Your task to perform on an android device: Open the map Image 0: 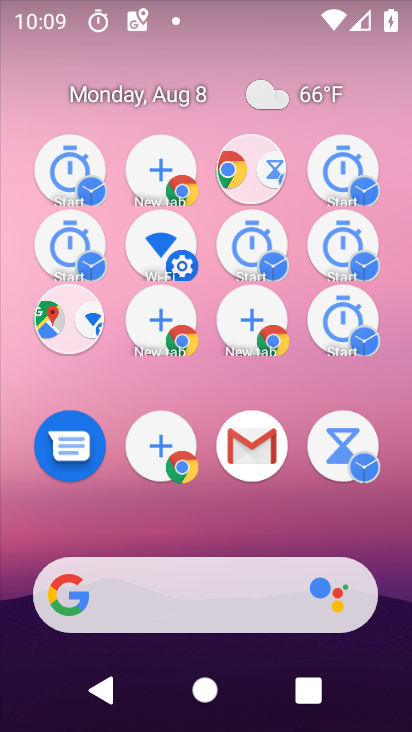
Step 0: drag from (326, 650) to (246, 286)
Your task to perform on an android device: Open the map Image 1: 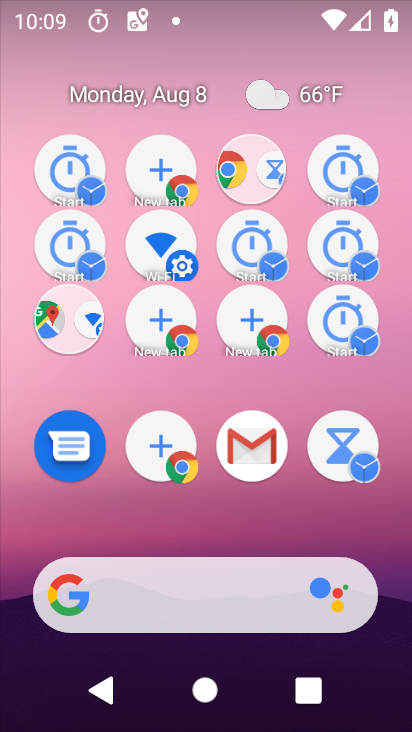
Step 1: drag from (233, 552) to (225, 216)
Your task to perform on an android device: Open the map Image 2: 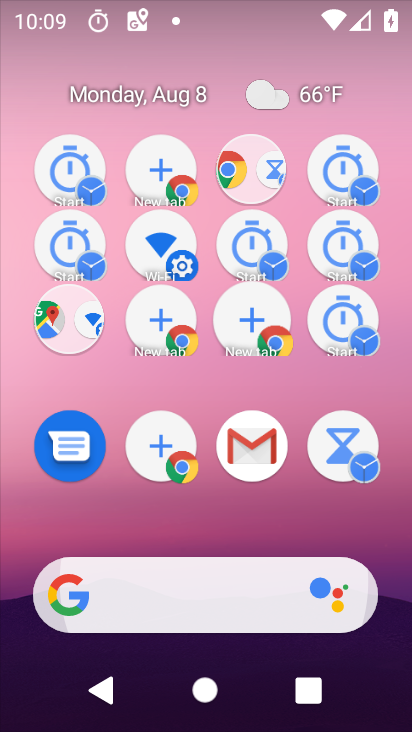
Step 2: drag from (250, 440) to (211, 152)
Your task to perform on an android device: Open the map Image 3: 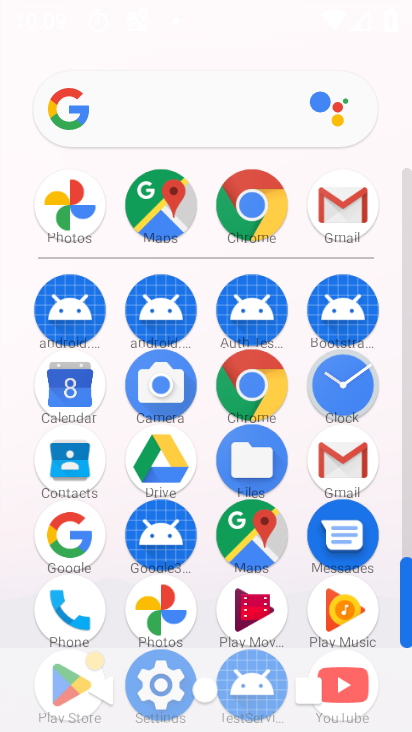
Step 3: drag from (268, 571) to (228, 301)
Your task to perform on an android device: Open the map Image 4: 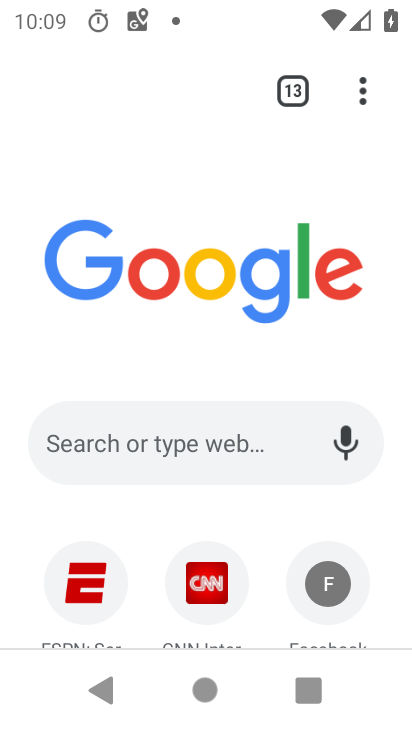
Step 4: press back button
Your task to perform on an android device: Open the map Image 5: 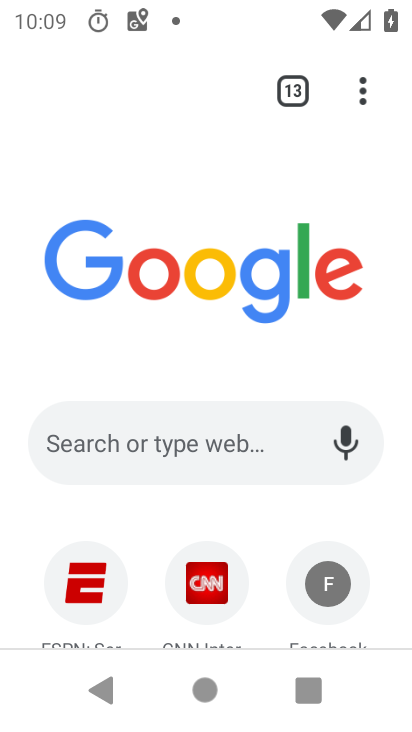
Step 5: press back button
Your task to perform on an android device: Open the map Image 6: 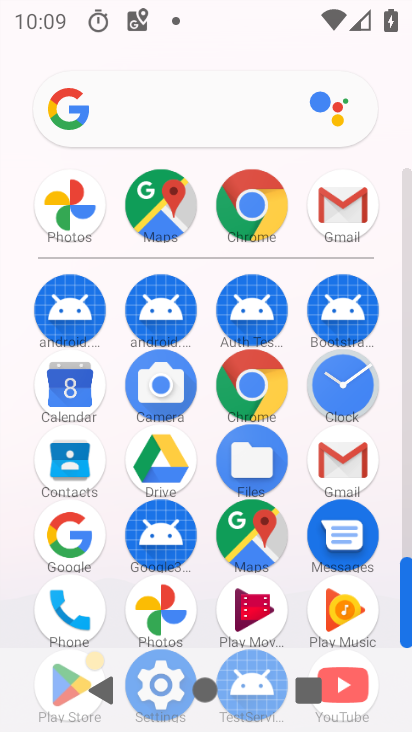
Step 6: press back button
Your task to perform on an android device: Open the map Image 7: 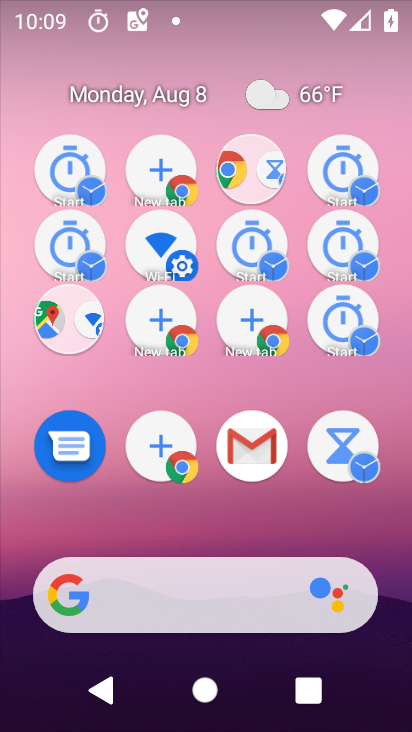
Step 7: drag from (256, 480) to (227, 272)
Your task to perform on an android device: Open the map Image 8: 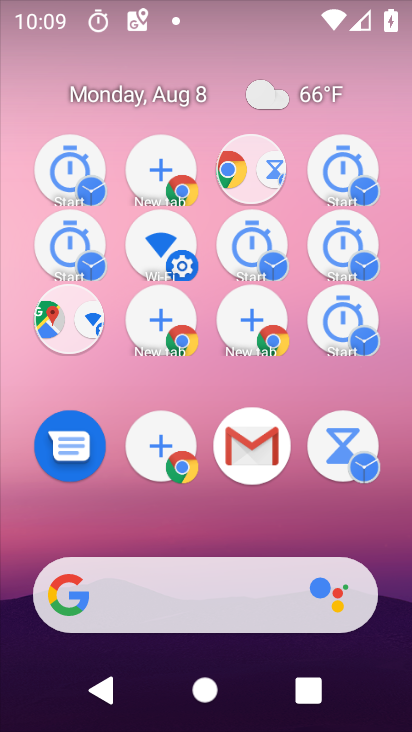
Step 8: drag from (276, 491) to (256, 267)
Your task to perform on an android device: Open the map Image 9: 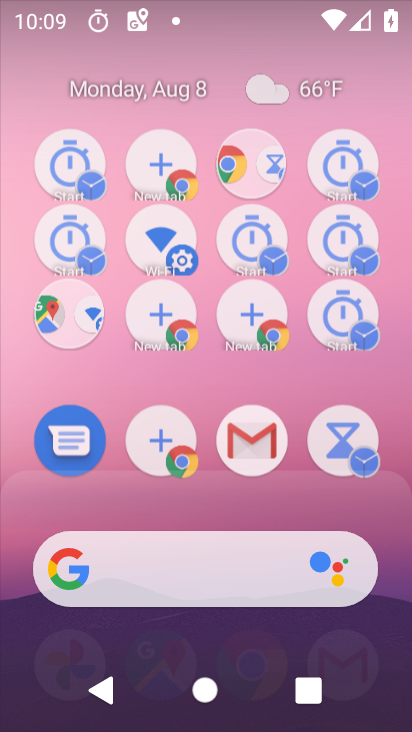
Step 9: drag from (225, 611) to (189, 271)
Your task to perform on an android device: Open the map Image 10: 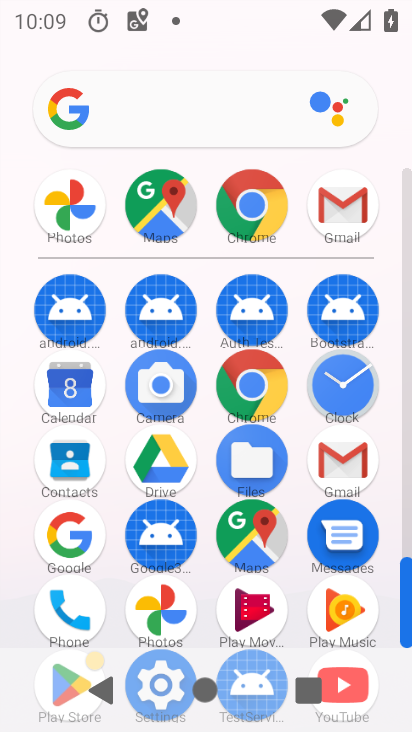
Step 10: click (249, 527)
Your task to perform on an android device: Open the map Image 11: 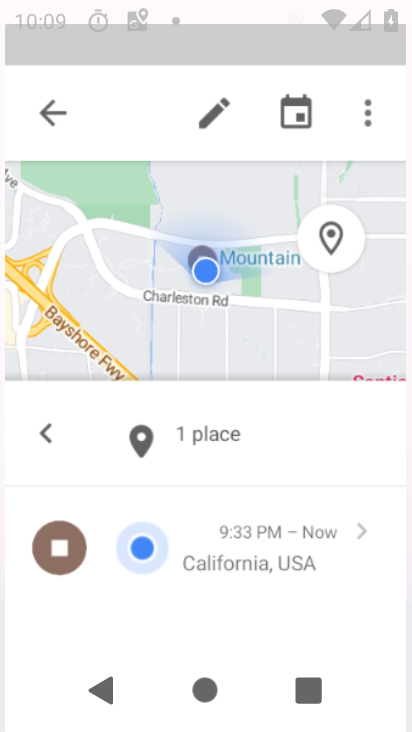
Step 11: click (251, 534)
Your task to perform on an android device: Open the map Image 12: 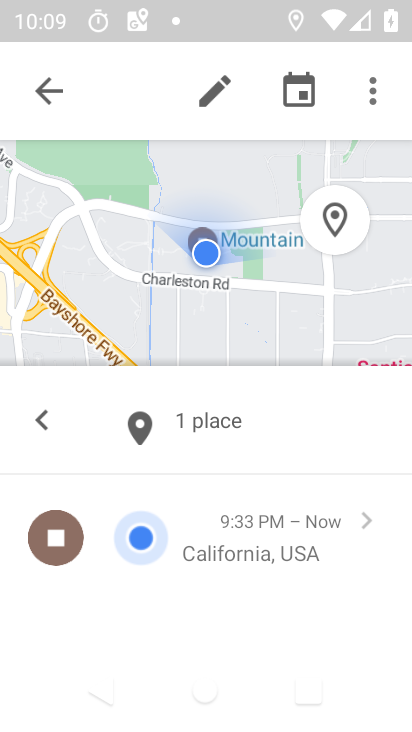
Step 12: task complete